Your task to perform on an android device: turn on sleep mode Image 0: 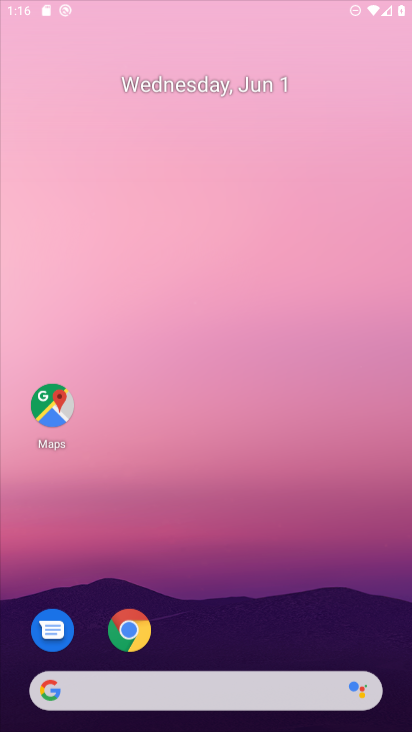
Step 0: press home button
Your task to perform on an android device: turn on sleep mode Image 1: 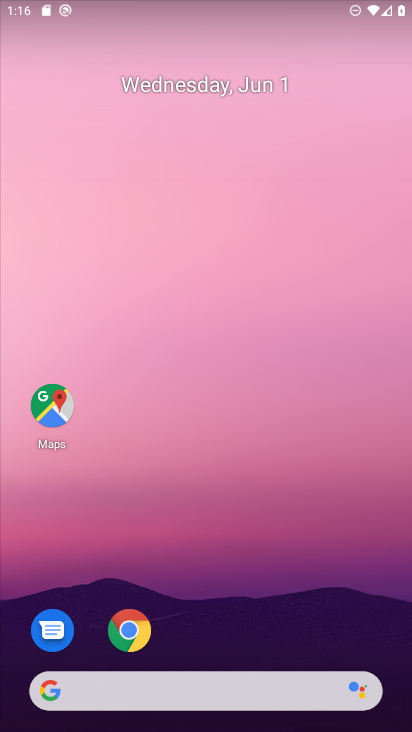
Step 1: drag from (283, 632) to (245, 178)
Your task to perform on an android device: turn on sleep mode Image 2: 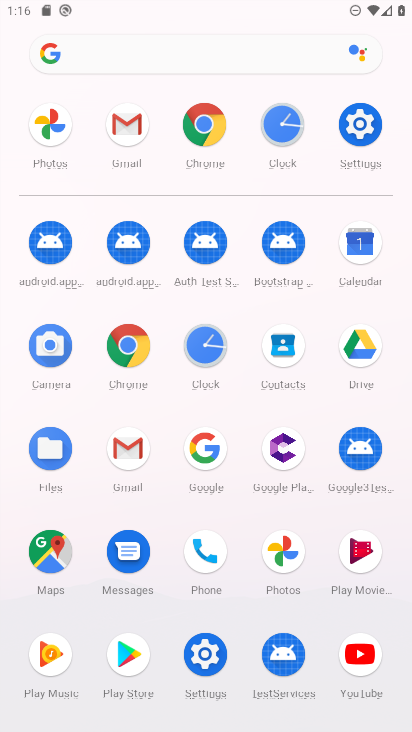
Step 2: click (358, 133)
Your task to perform on an android device: turn on sleep mode Image 3: 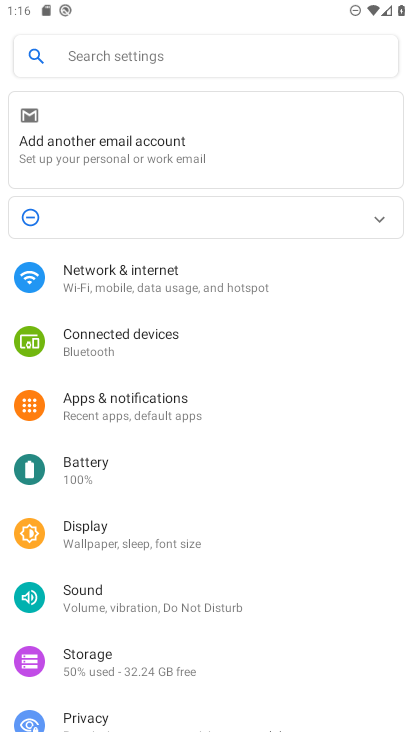
Step 3: click (91, 542)
Your task to perform on an android device: turn on sleep mode Image 4: 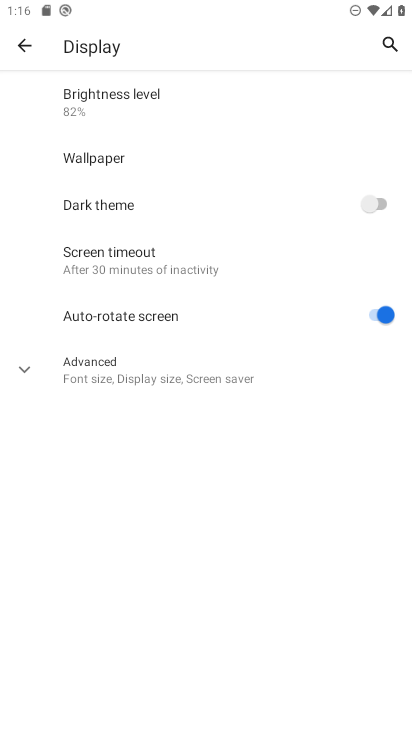
Step 4: task complete